Your task to perform on an android device: check out phone information Image 0: 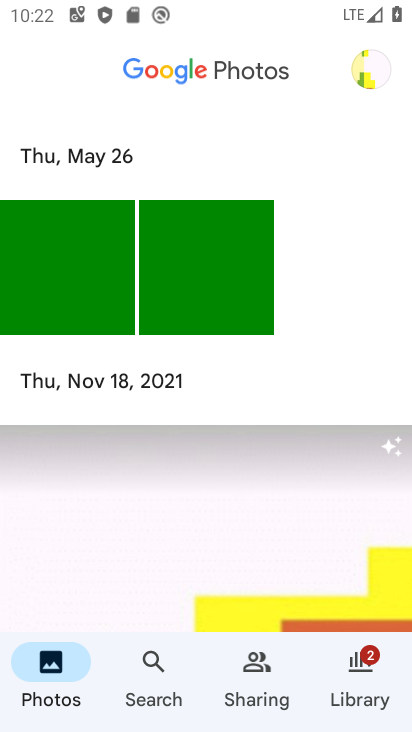
Step 0: press home button
Your task to perform on an android device: check out phone information Image 1: 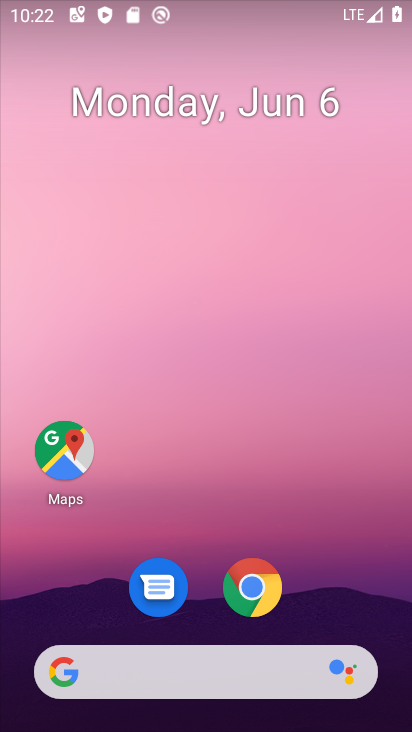
Step 1: drag from (316, 575) to (10, 343)
Your task to perform on an android device: check out phone information Image 2: 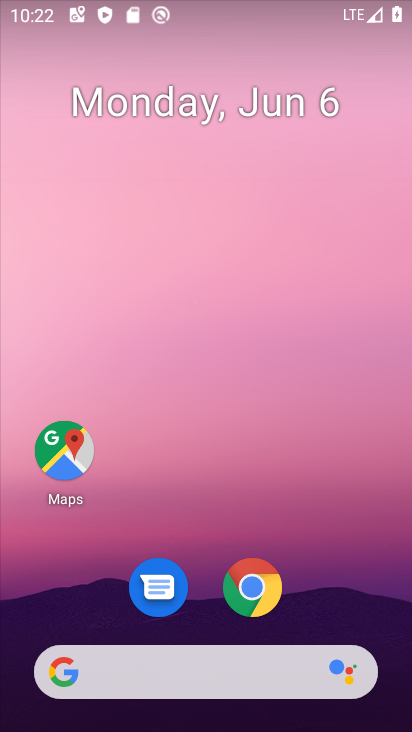
Step 2: drag from (180, 731) to (58, 40)
Your task to perform on an android device: check out phone information Image 3: 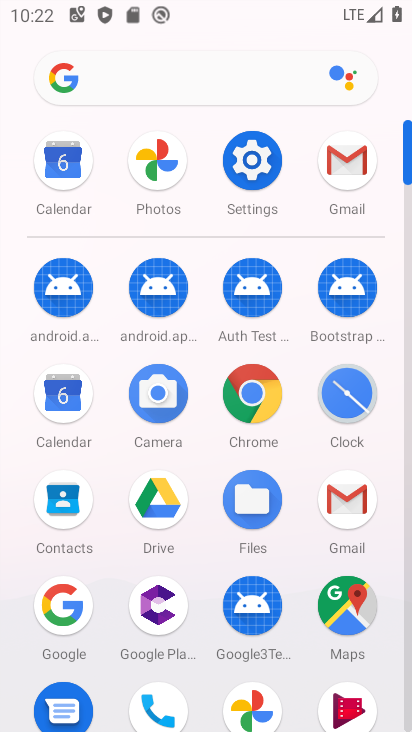
Step 3: click (260, 172)
Your task to perform on an android device: check out phone information Image 4: 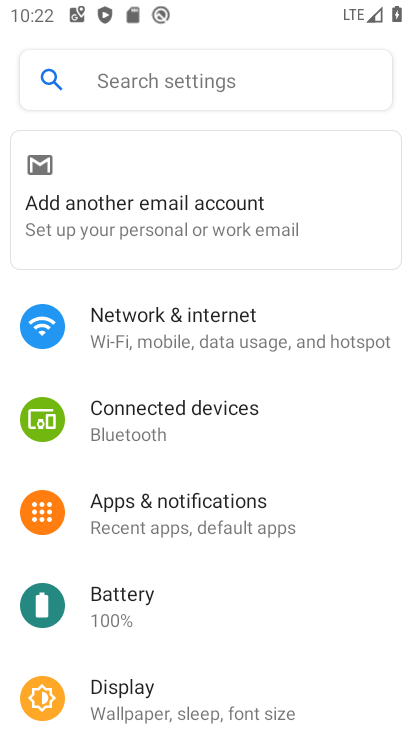
Step 4: drag from (174, 649) to (225, 4)
Your task to perform on an android device: check out phone information Image 5: 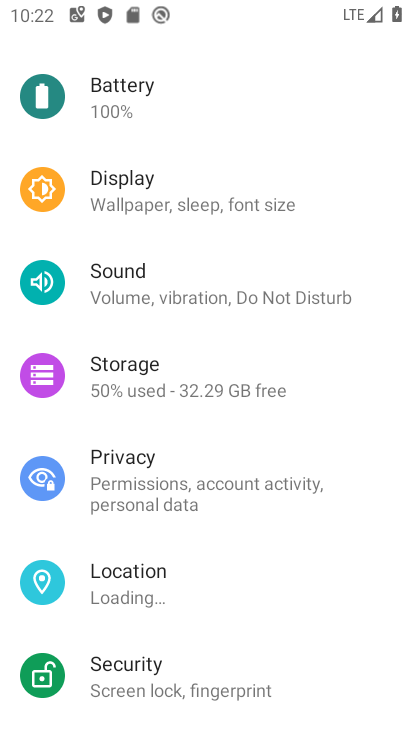
Step 5: drag from (177, 598) to (191, 147)
Your task to perform on an android device: check out phone information Image 6: 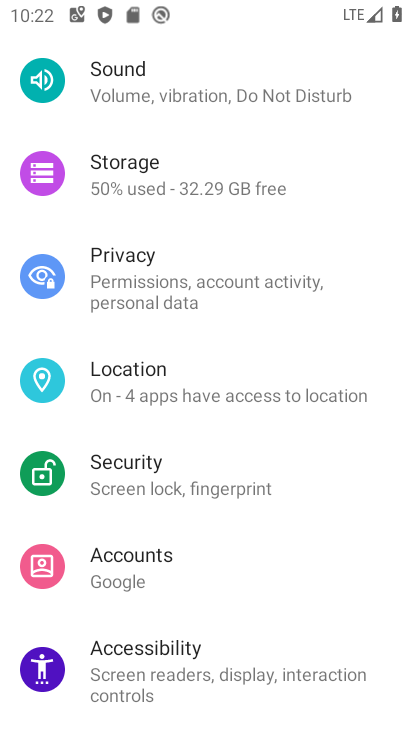
Step 6: drag from (229, 693) to (203, 267)
Your task to perform on an android device: check out phone information Image 7: 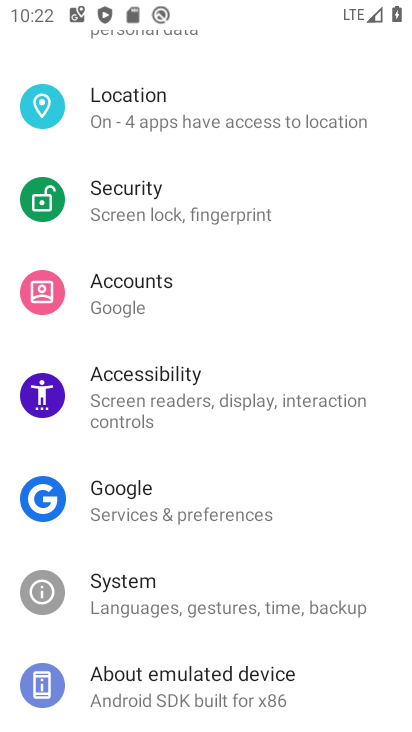
Step 7: click (226, 688)
Your task to perform on an android device: check out phone information Image 8: 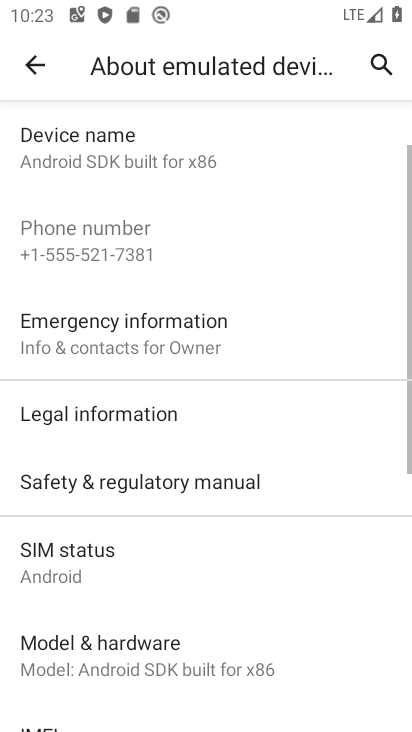
Step 8: task complete